Your task to perform on an android device: When is my next meeting? Image 0: 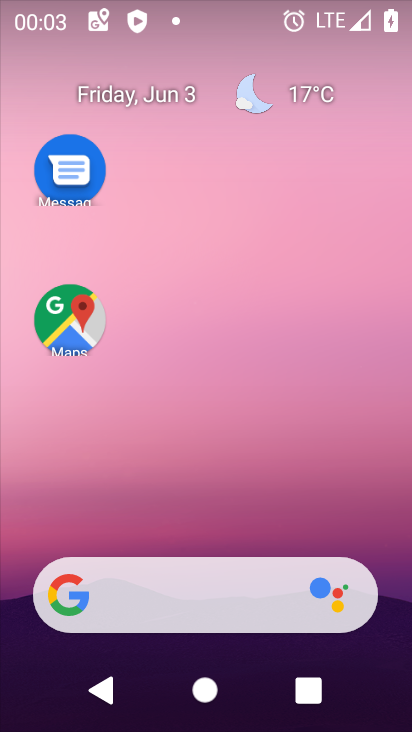
Step 0: press home button
Your task to perform on an android device: When is my next meeting? Image 1: 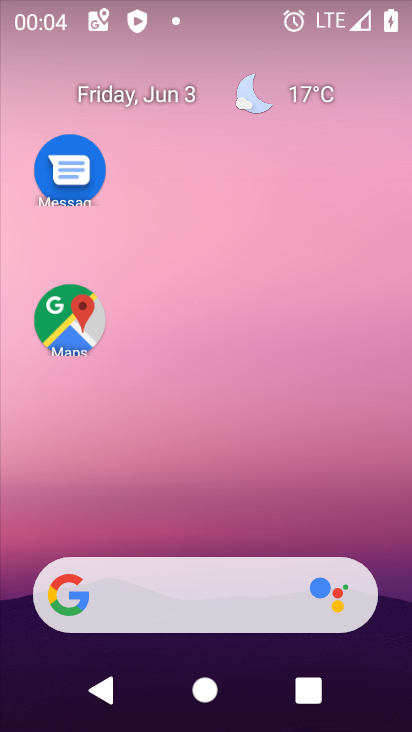
Step 1: drag from (308, 550) to (212, 27)
Your task to perform on an android device: When is my next meeting? Image 2: 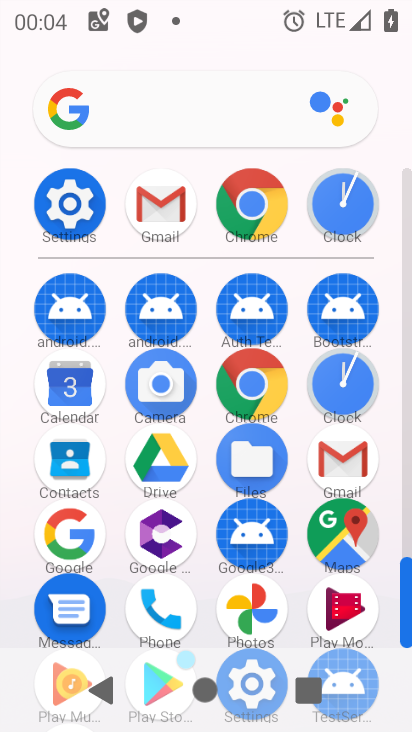
Step 2: click (51, 378)
Your task to perform on an android device: When is my next meeting? Image 3: 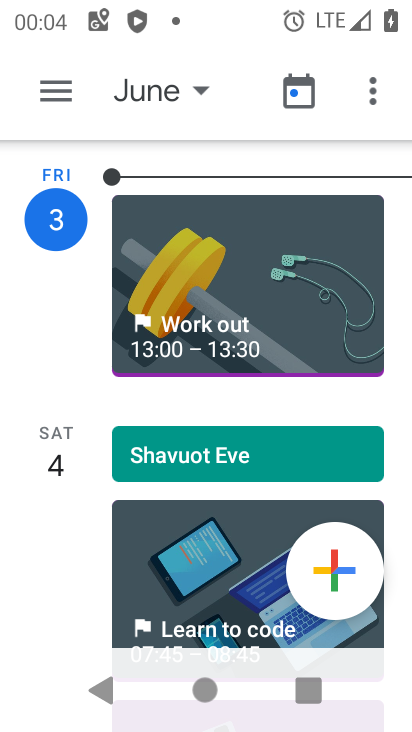
Step 3: task complete